Your task to perform on an android device: Search for a new desk on IKEA Image 0: 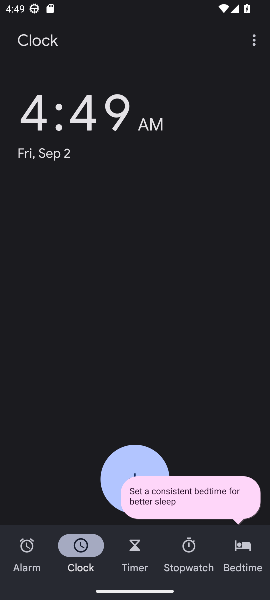
Step 0: press home button
Your task to perform on an android device: Search for a new desk on IKEA Image 1: 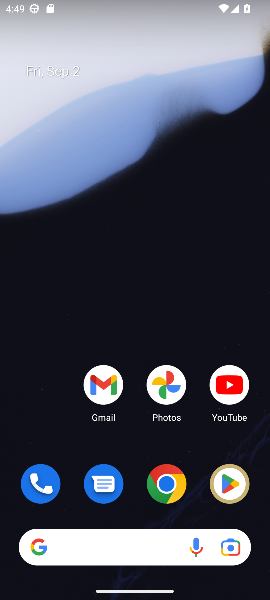
Step 1: click (171, 486)
Your task to perform on an android device: Search for a new desk on IKEA Image 2: 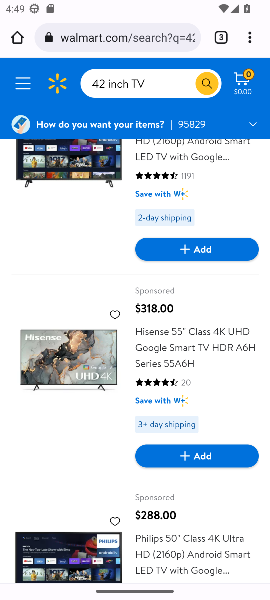
Step 2: click (172, 34)
Your task to perform on an android device: Search for a new desk on IKEA Image 3: 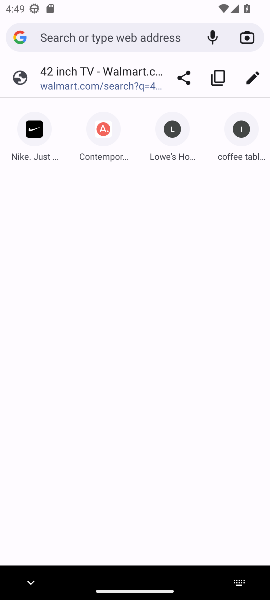
Step 3: type "IKEA"
Your task to perform on an android device: Search for a new desk on IKEA Image 4: 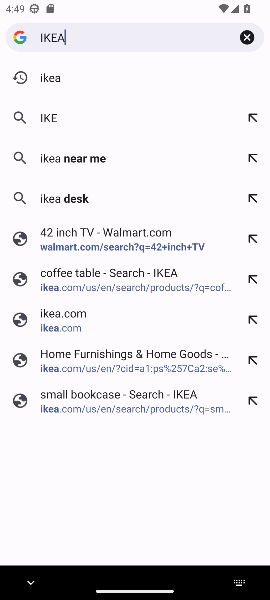
Step 4: press enter
Your task to perform on an android device: Search for a new desk on IKEA Image 5: 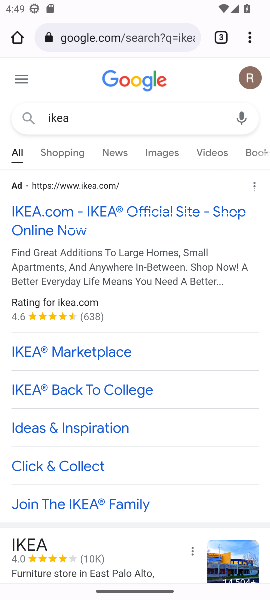
Step 5: click (118, 206)
Your task to perform on an android device: Search for a new desk on IKEA Image 6: 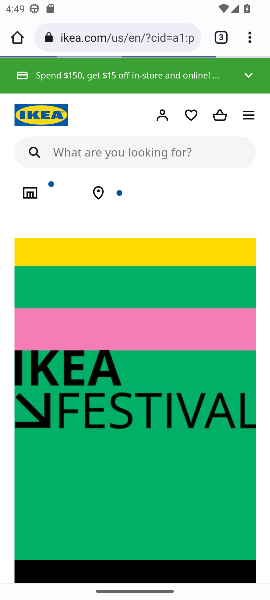
Step 6: click (123, 150)
Your task to perform on an android device: Search for a new desk on IKEA Image 7: 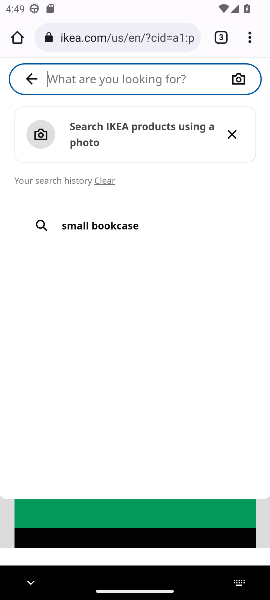
Step 7: type "desk"
Your task to perform on an android device: Search for a new desk on IKEA Image 8: 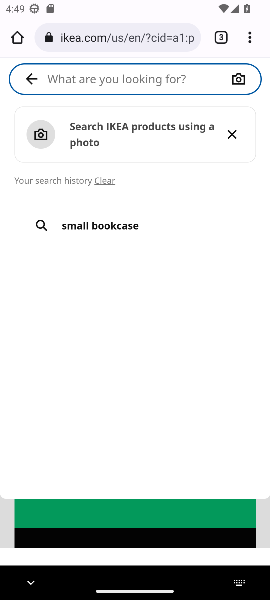
Step 8: press enter
Your task to perform on an android device: Search for a new desk on IKEA Image 9: 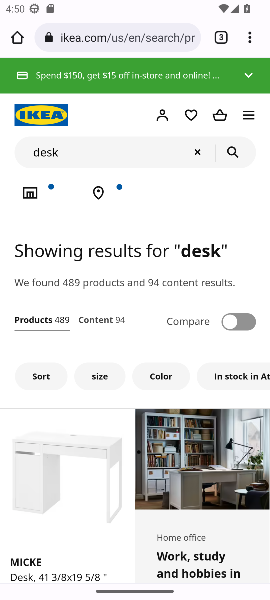
Step 9: task complete